Your task to perform on an android device: turn on bluetooth scan Image 0: 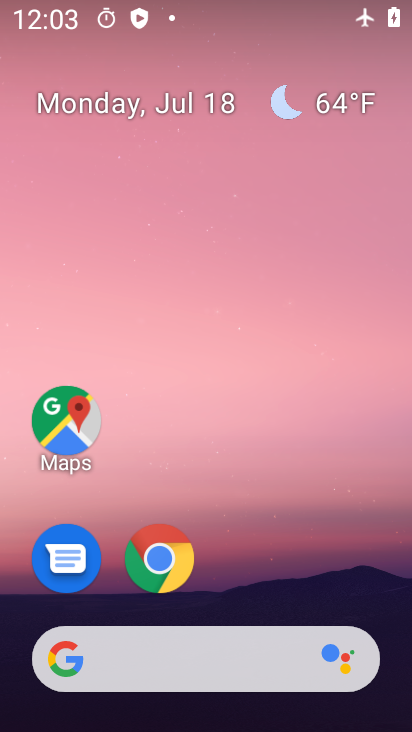
Step 0: drag from (362, 556) to (375, 261)
Your task to perform on an android device: turn on bluetooth scan Image 1: 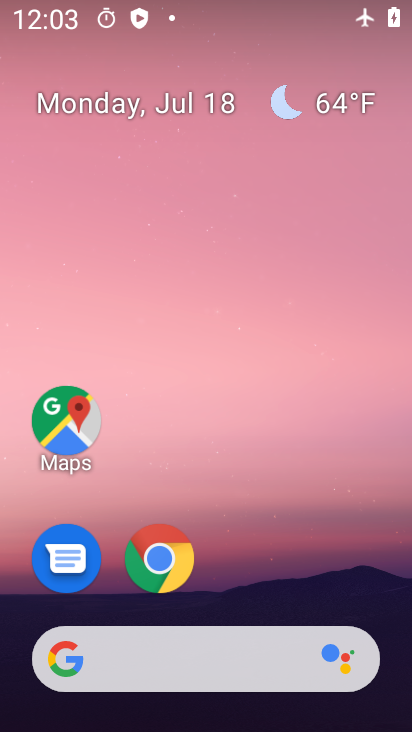
Step 1: drag from (345, 523) to (355, 89)
Your task to perform on an android device: turn on bluetooth scan Image 2: 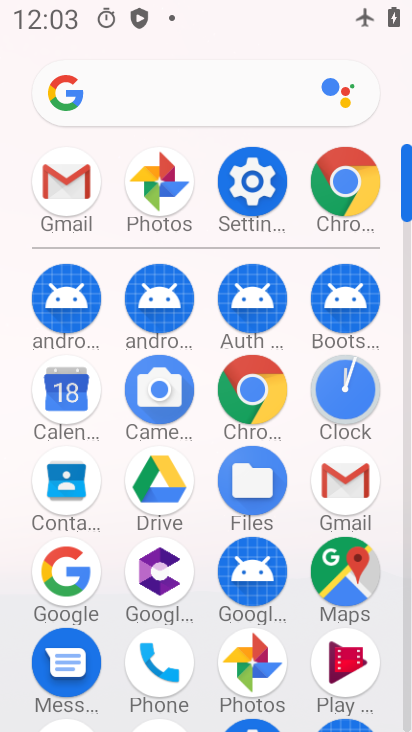
Step 2: click (253, 177)
Your task to perform on an android device: turn on bluetooth scan Image 3: 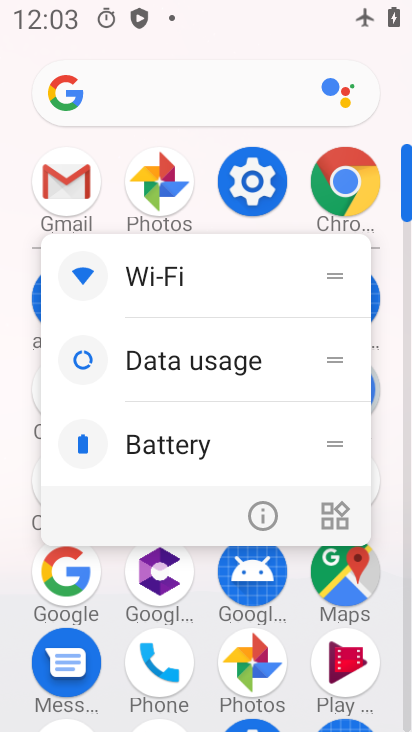
Step 3: click (253, 177)
Your task to perform on an android device: turn on bluetooth scan Image 4: 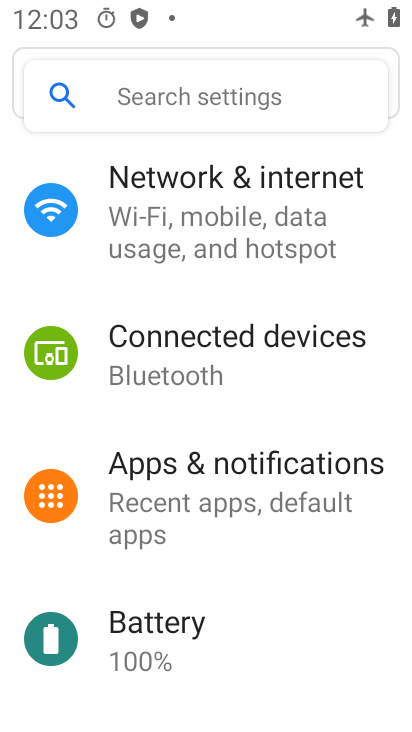
Step 4: drag from (371, 517) to (370, 419)
Your task to perform on an android device: turn on bluetooth scan Image 5: 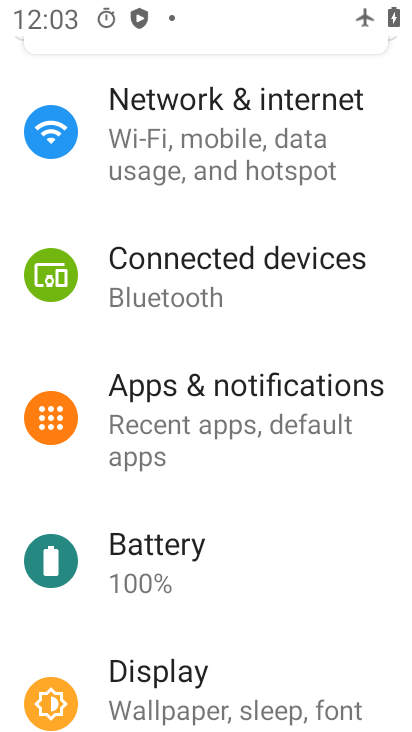
Step 5: drag from (370, 507) to (370, 419)
Your task to perform on an android device: turn on bluetooth scan Image 6: 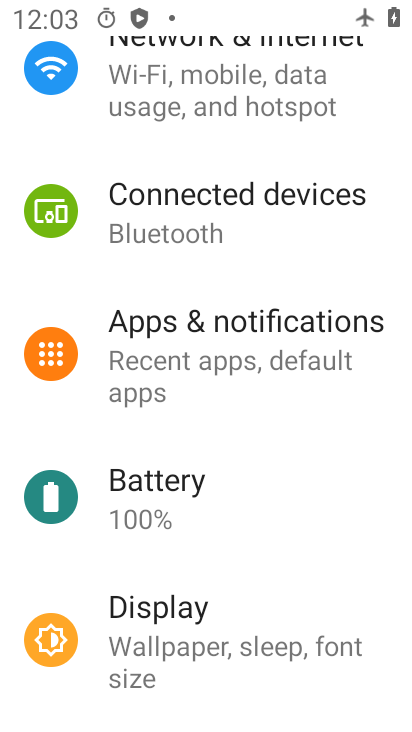
Step 6: drag from (369, 519) to (359, 420)
Your task to perform on an android device: turn on bluetooth scan Image 7: 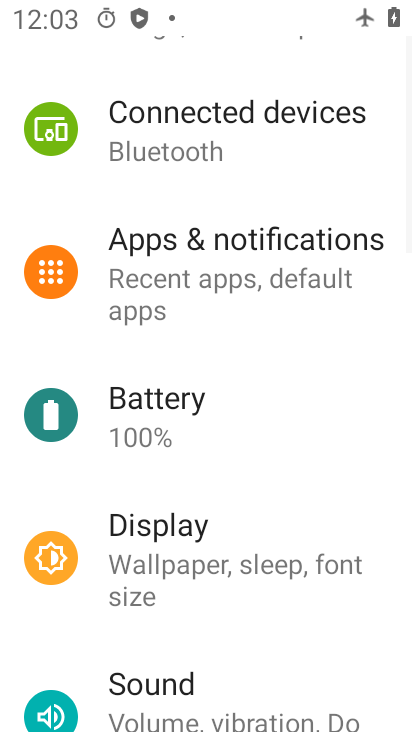
Step 7: drag from (366, 510) to (358, 412)
Your task to perform on an android device: turn on bluetooth scan Image 8: 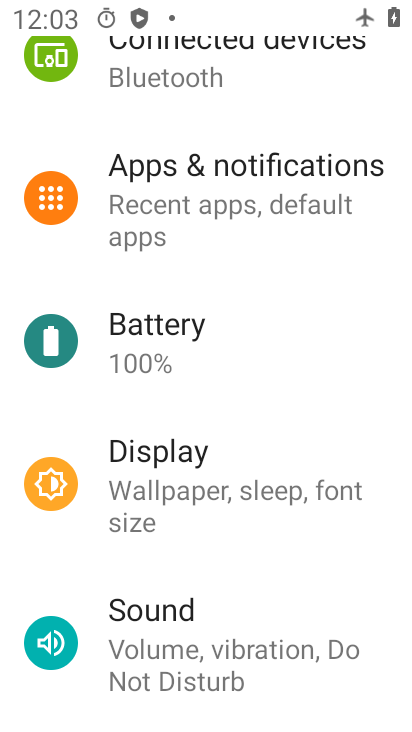
Step 8: drag from (357, 524) to (340, 426)
Your task to perform on an android device: turn on bluetooth scan Image 9: 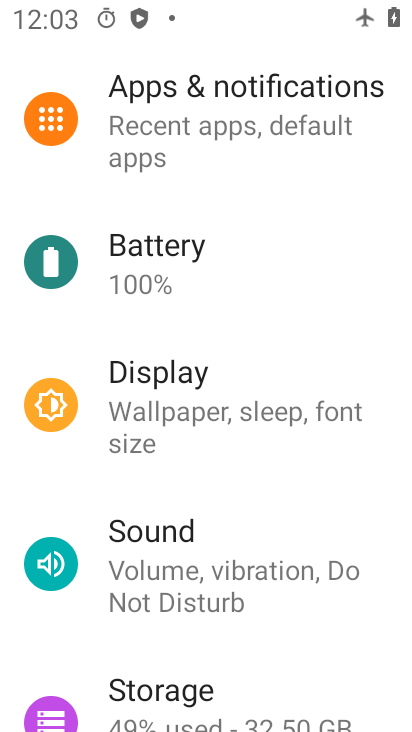
Step 9: drag from (341, 518) to (331, 430)
Your task to perform on an android device: turn on bluetooth scan Image 10: 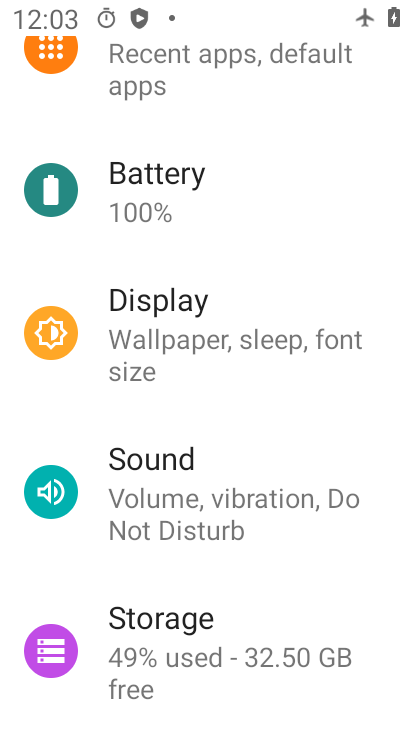
Step 10: drag from (344, 564) to (344, 455)
Your task to perform on an android device: turn on bluetooth scan Image 11: 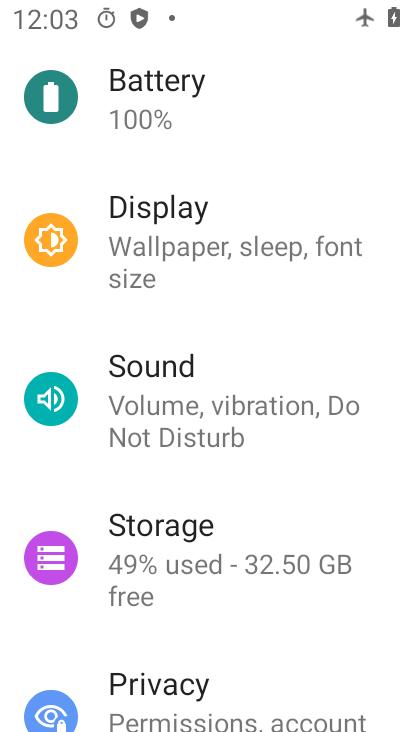
Step 11: drag from (359, 559) to (356, 480)
Your task to perform on an android device: turn on bluetooth scan Image 12: 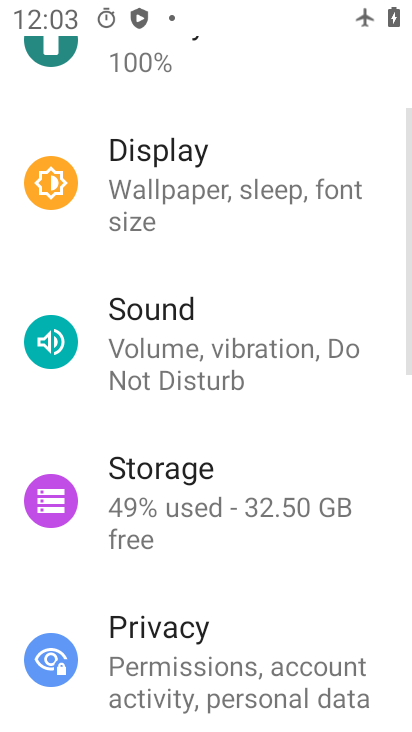
Step 12: drag from (355, 581) to (353, 469)
Your task to perform on an android device: turn on bluetooth scan Image 13: 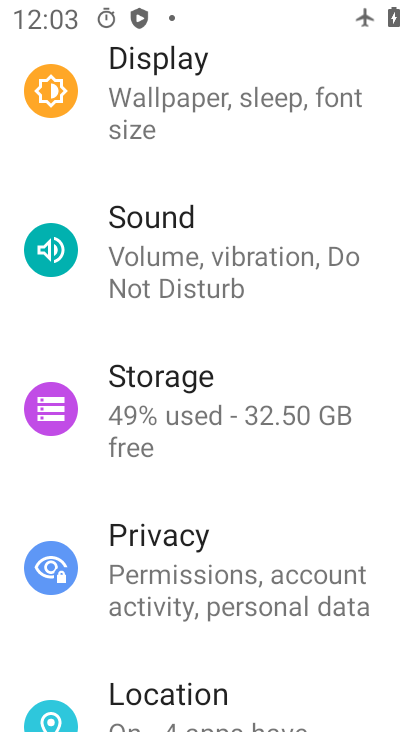
Step 13: drag from (348, 583) to (343, 503)
Your task to perform on an android device: turn on bluetooth scan Image 14: 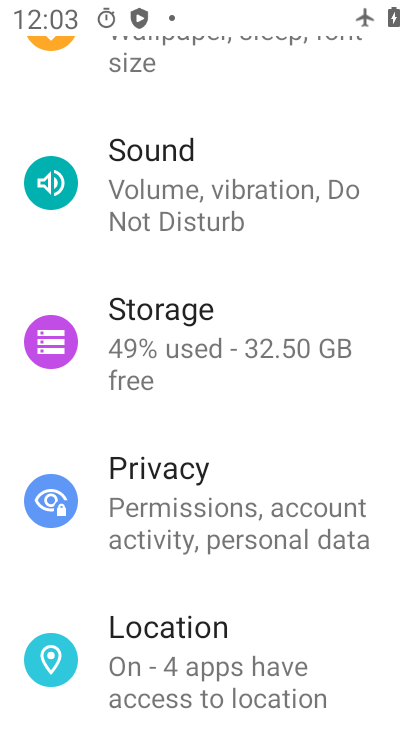
Step 14: drag from (345, 597) to (347, 541)
Your task to perform on an android device: turn on bluetooth scan Image 15: 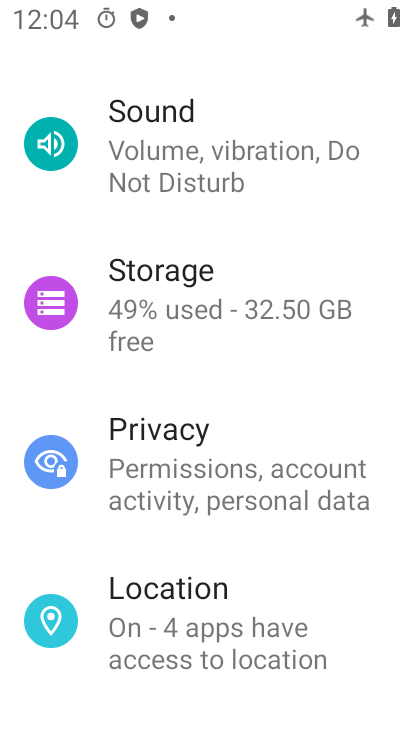
Step 15: drag from (341, 590) to (341, 501)
Your task to perform on an android device: turn on bluetooth scan Image 16: 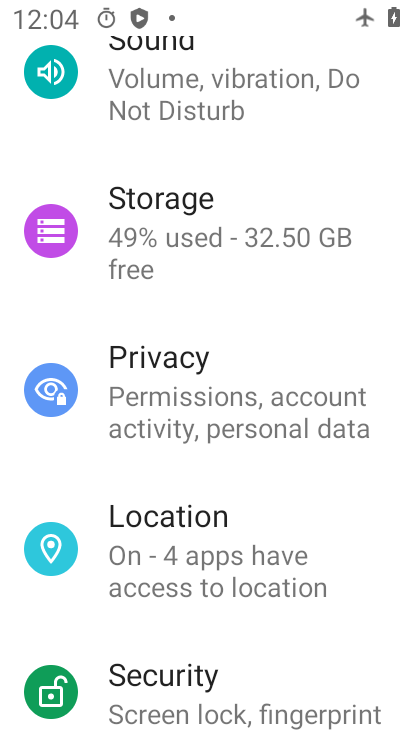
Step 16: click (340, 573)
Your task to perform on an android device: turn on bluetooth scan Image 17: 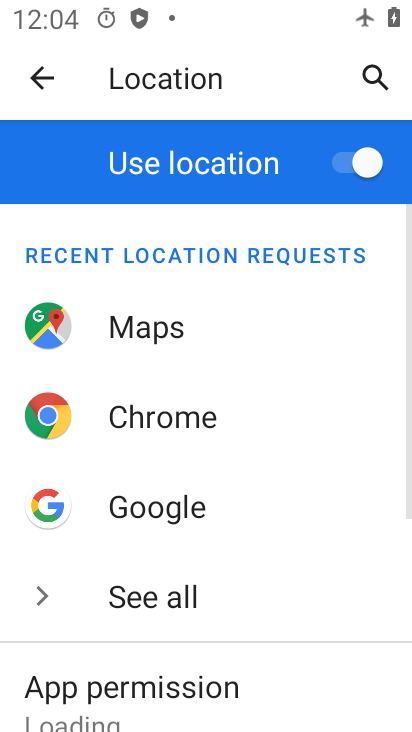
Step 17: drag from (338, 591) to (341, 488)
Your task to perform on an android device: turn on bluetooth scan Image 18: 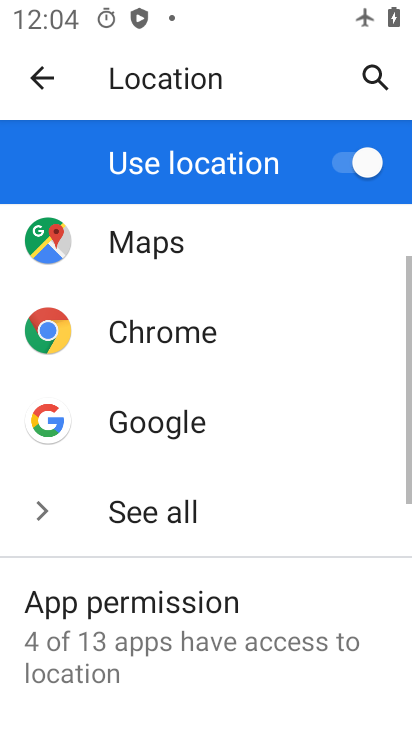
Step 18: drag from (351, 582) to (350, 486)
Your task to perform on an android device: turn on bluetooth scan Image 19: 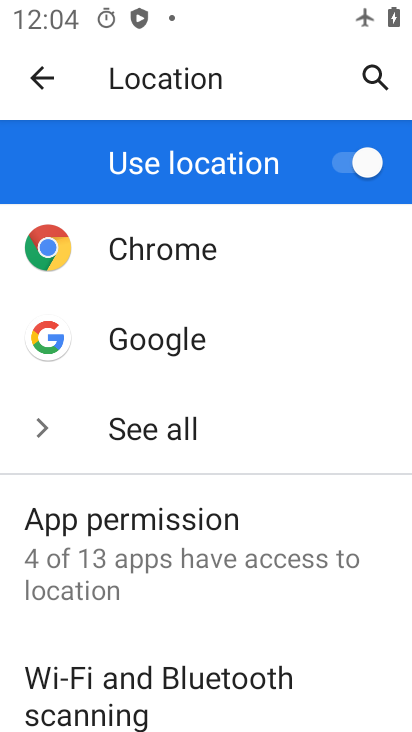
Step 19: drag from (351, 598) to (351, 471)
Your task to perform on an android device: turn on bluetooth scan Image 20: 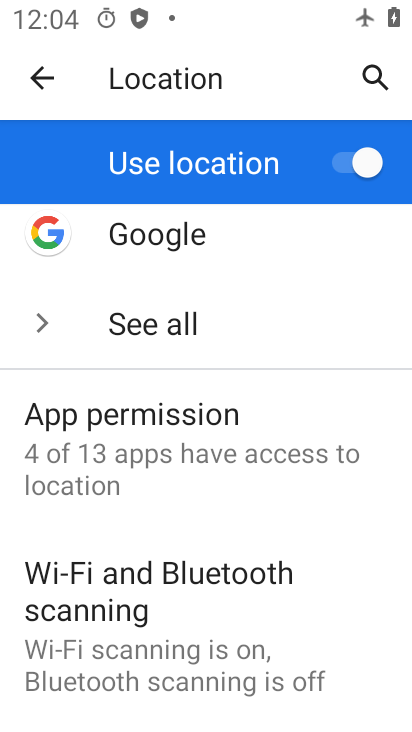
Step 20: drag from (359, 609) to (363, 521)
Your task to perform on an android device: turn on bluetooth scan Image 21: 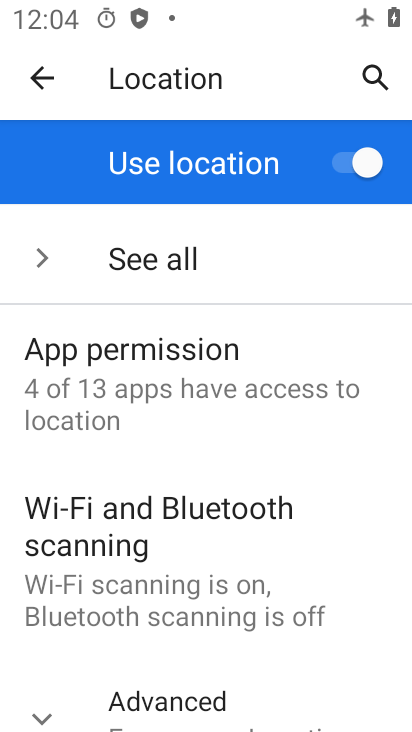
Step 21: click (323, 548)
Your task to perform on an android device: turn on bluetooth scan Image 22: 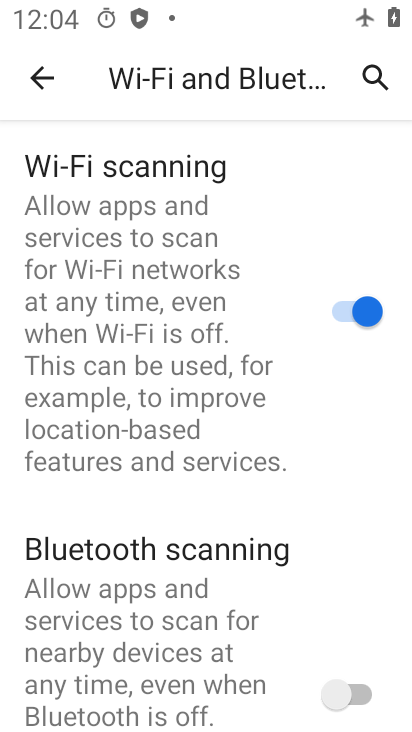
Step 22: drag from (335, 610) to (337, 458)
Your task to perform on an android device: turn on bluetooth scan Image 23: 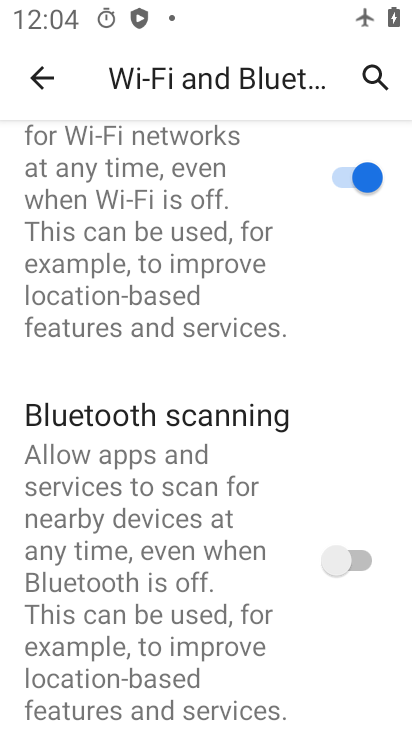
Step 23: click (344, 577)
Your task to perform on an android device: turn on bluetooth scan Image 24: 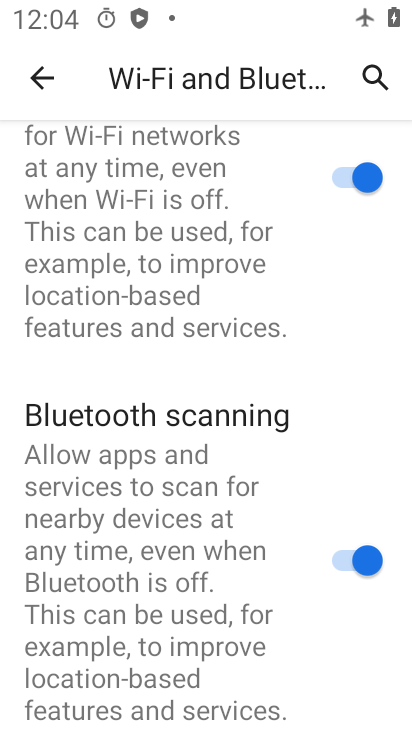
Step 24: task complete